Your task to perform on an android device: Go to eBay Image 0: 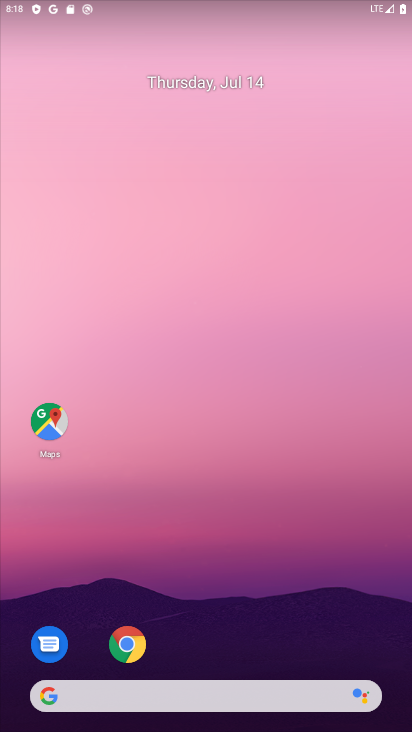
Step 0: drag from (233, 660) to (280, 174)
Your task to perform on an android device: Go to eBay Image 1: 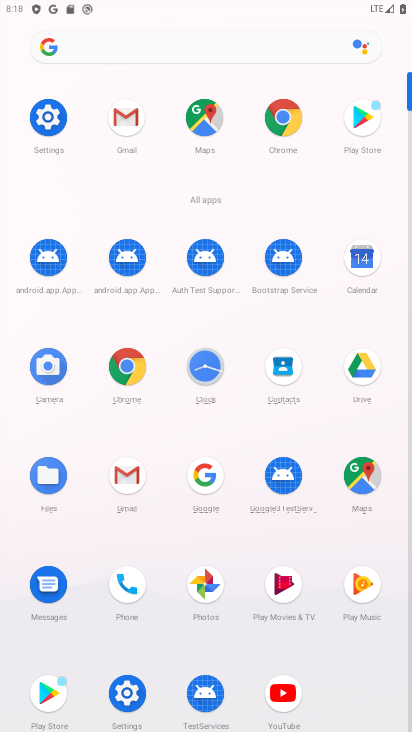
Step 1: click (123, 377)
Your task to perform on an android device: Go to eBay Image 2: 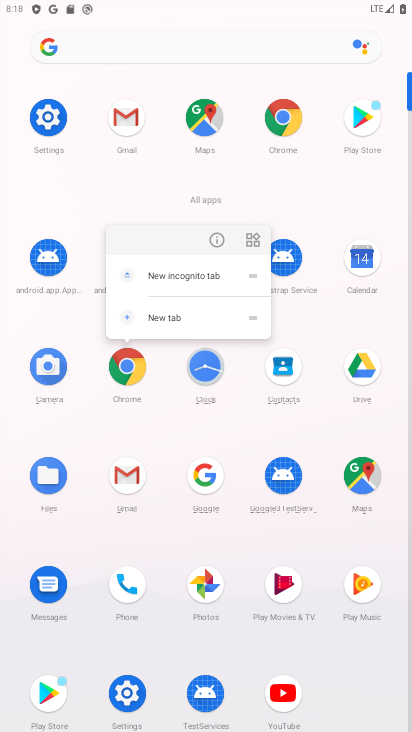
Step 2: click (123, 377)
Your task to perform on an android device: Go to eBay Image 3: 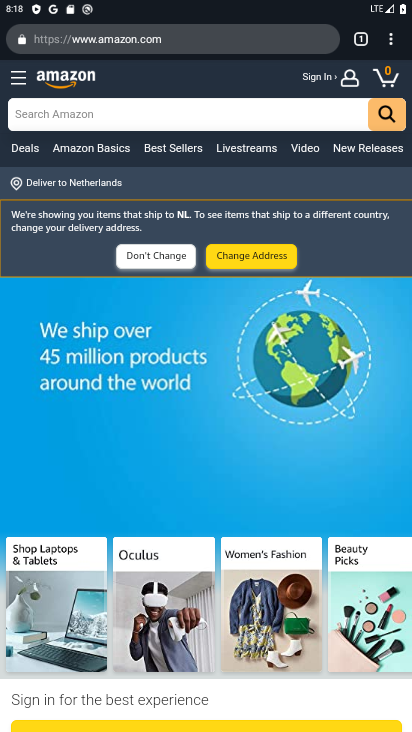
Step 3: drag from (390, 33) to (332, 103)
Your task to perform on an android device: Go to eBay Image 4: 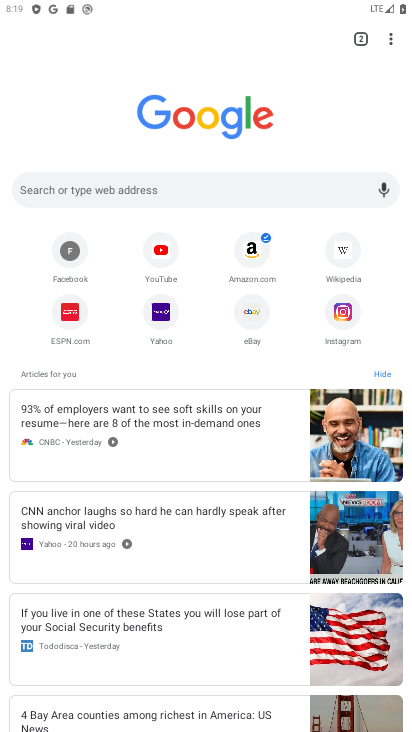
Step 4: click (261, 319)
Your task to perform on an android device: Go to eBay Image 5: 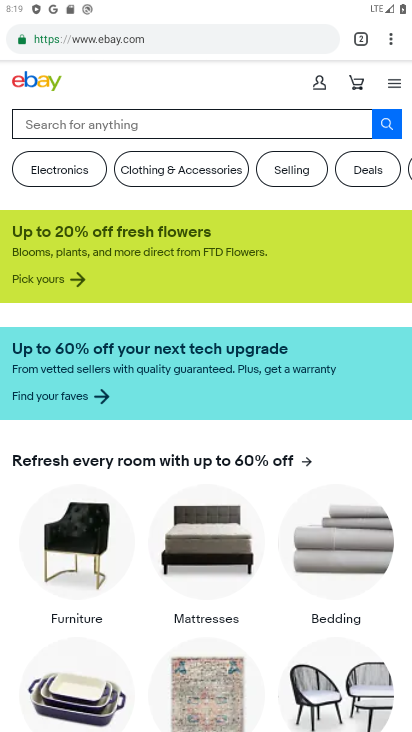
Step 5: task complete